Your task to perform on an android device: turn off notifications in google photos Image 0: 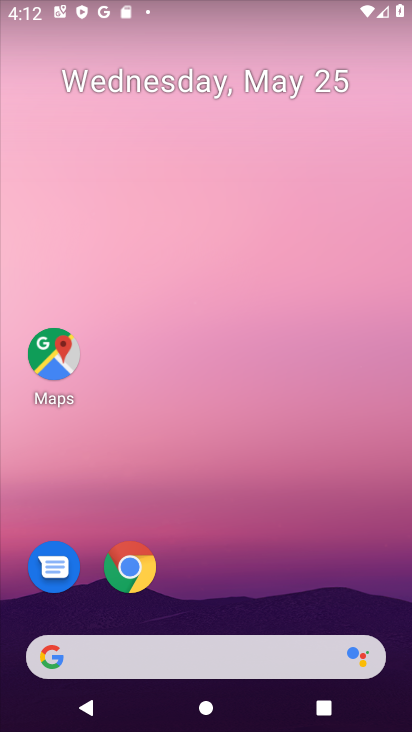
Step 0: drag from (263, 578) to (204, 41)
Your task to perform on an android device: turn off notifications in google photos Image 1: 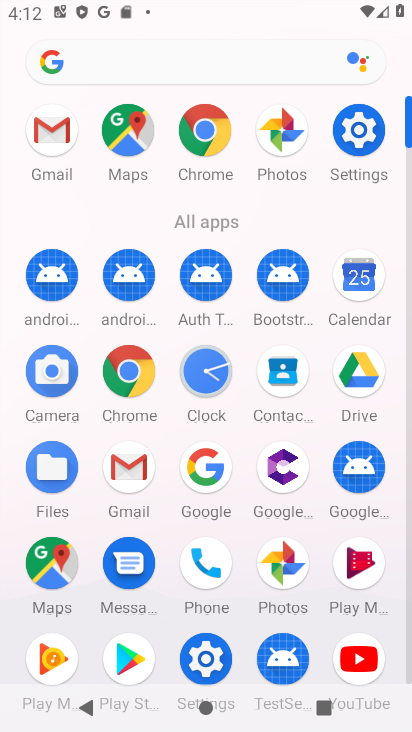
Step 1: drag from (1, 574) to (7, 274)
Your task to perform on an android device: turn off notifications in google photos Image 2: 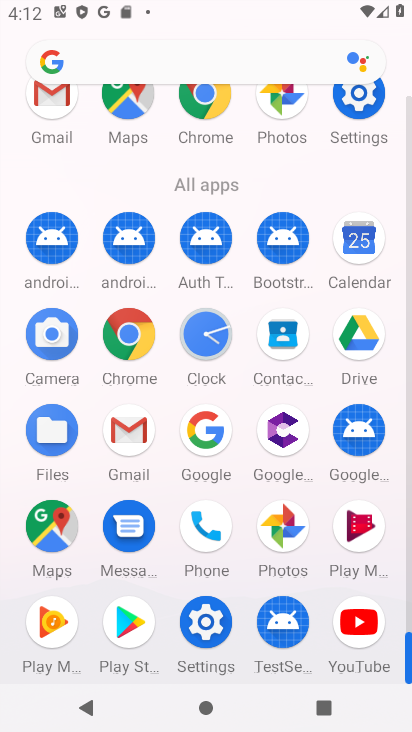
Step 2: click (281, 525)
Your task to perform on an android device: turn off notifications in google photos Image 3: 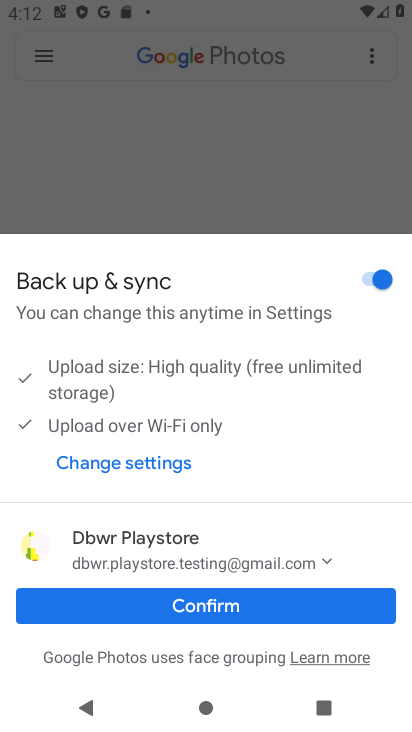
Step 3: click (199, 614)
Your task to perform on an android device: turn off notifications in google photos Image 4: 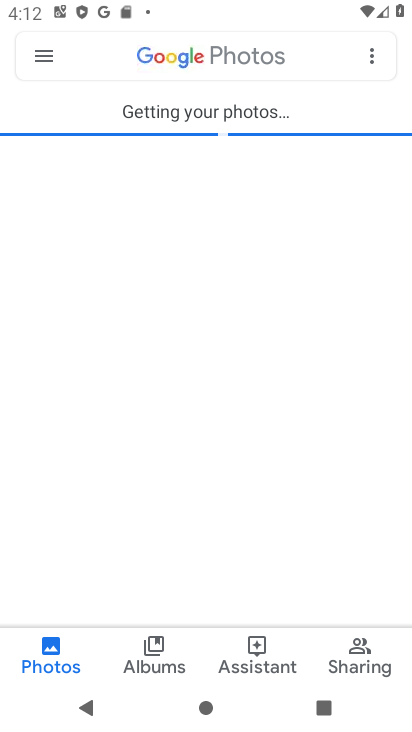
Step 4: click (38, 57)
Your task to perform on an android device: turn off notifications in google photos Image 5: 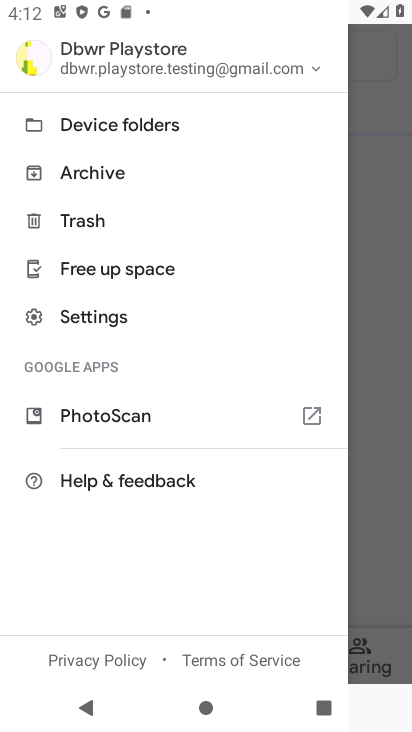
Step 5: click (124, 311)
Your task to perform on an android device: turn off notifications in google photos Image 6: 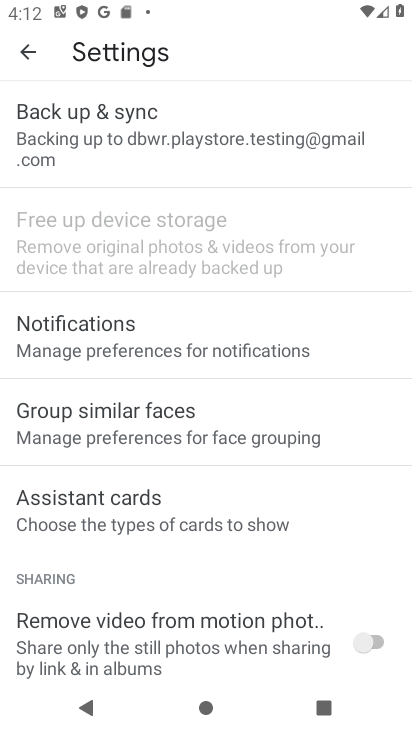
Step 6: click (138, 345)
Your task to perform on an android device: turn off notifications in google photos Image 7: 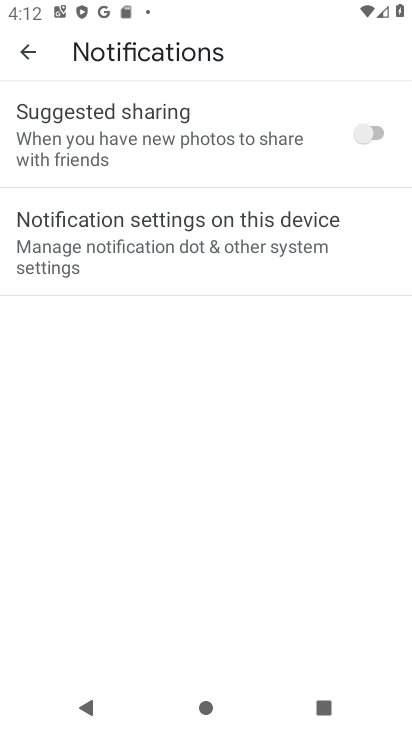
Step 7: click (264, 219)
Your task to perform on an android device: turn off notifications in google photos Image 8: 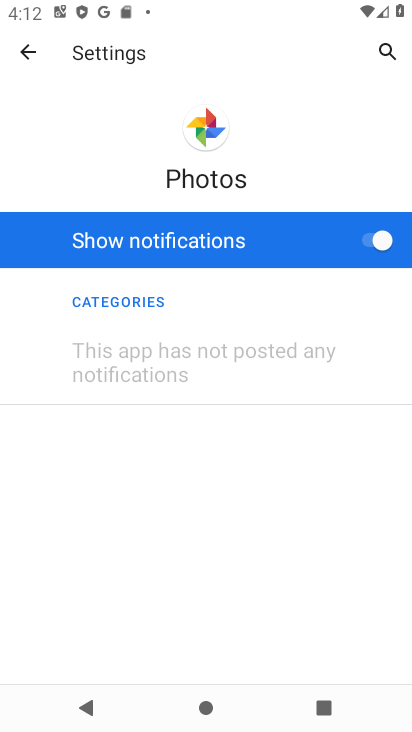
Step 8: click (389, 237)
Your task to perform on an android device: turn off notifications in google photos Image 9: 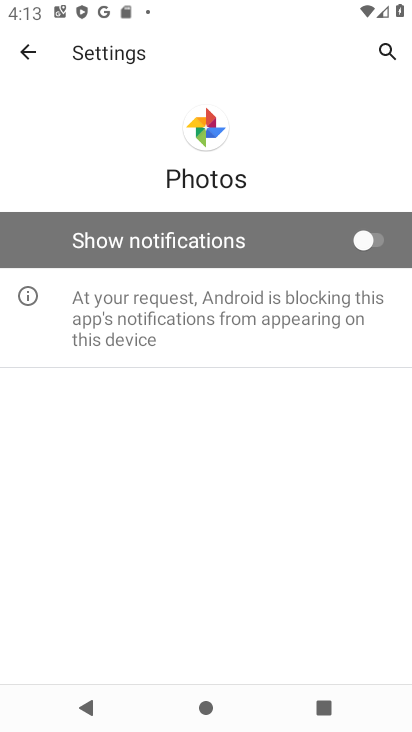
Step 9: task complete